Your task to perform on an android device: open app "Roku - Official Remote Control" (install if not already installed) Image 0: 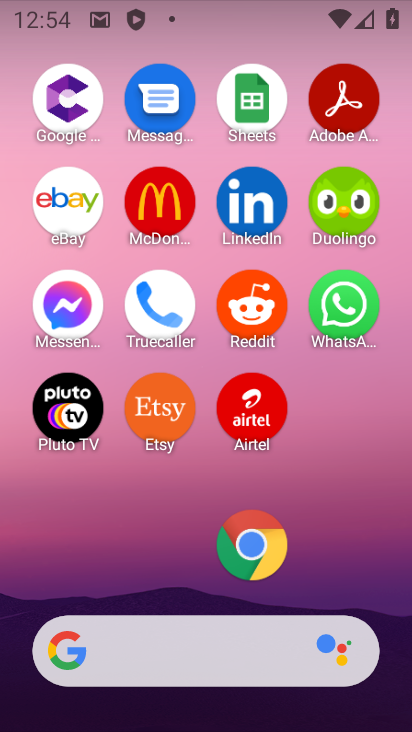
Step 0: drag from (105, 545) to (195, 3)
Your task to perform on an android device: open app "Roku - Official Remote Control" (install if not already installed) Image 1: 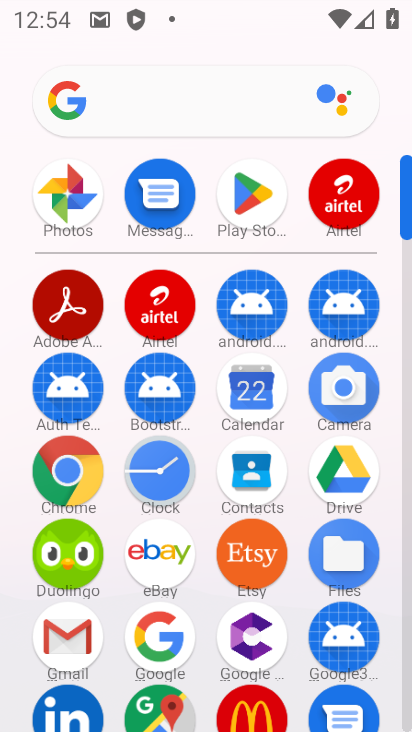
Step 1: click (259, 203)
Your task to perform on an android device: open app "Roku - Official Remote Control" (install if not already installed) Image 2: 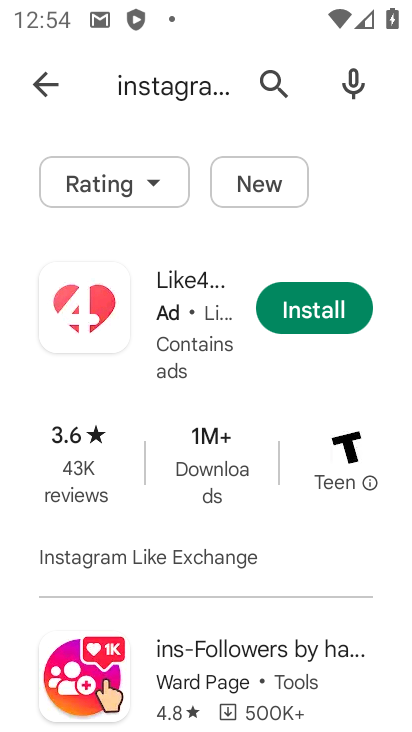
Step 2: click (256, 81)
Your task to perform on an android device: open app "Roku - Official Remote Control" (install if not already installed) Image 3: 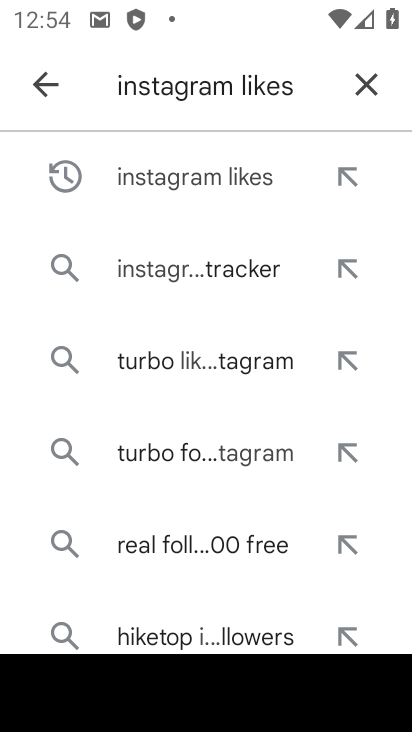
Step 3: click (354, 88)
Your task to perform on an android device: open app "Roku - Official Remote Control" (install if not already installed) Image 4: 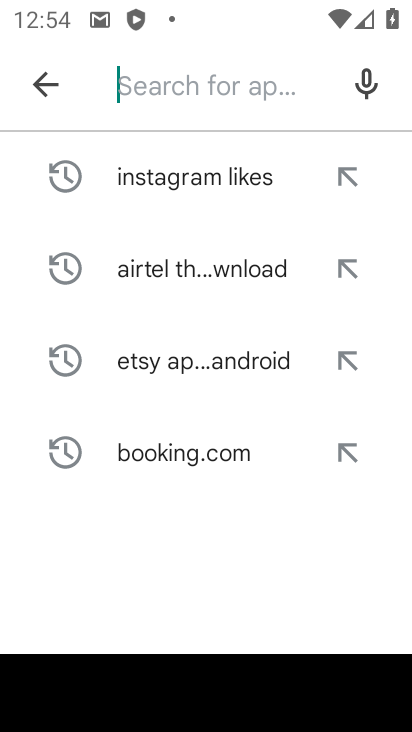
Step 4: click (264, 108)
Your task to perform on an android device: open app "Roku - Official Remote Control" (install if not already installed) Image 5: 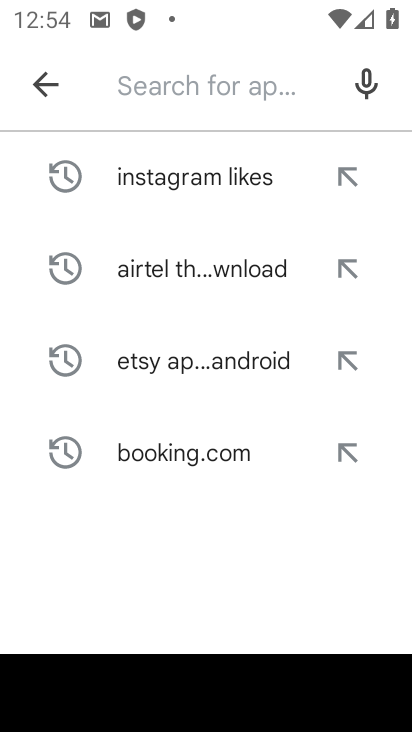
Step 5: type "roku"
Your task to perform on an android device: open app "Roku - Official Remote Control" (install if not already installed) Image 6: 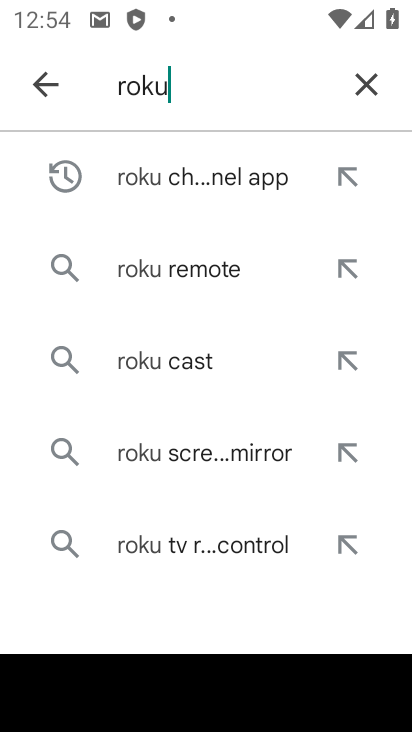
Step 6: click (209, 280)
Your task to perform on an android device: open app "Roku - Official Remote Control" (install if not already installed) Image 7: 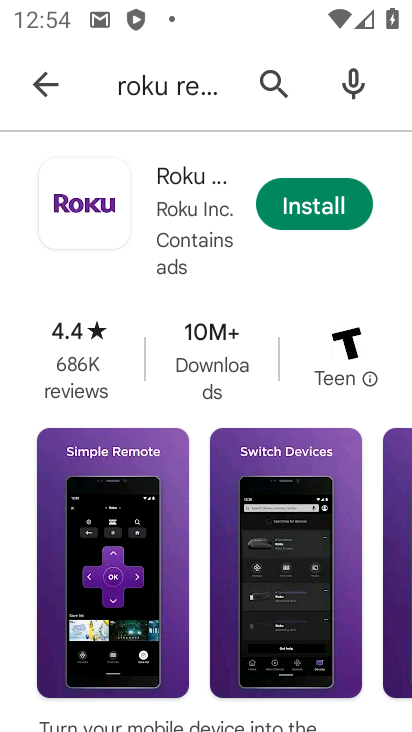
Step 7: click (297, 211)
Your task to perform on an android device: open app "Roku - Official Remote Control" (install if not already installed) Image 8: 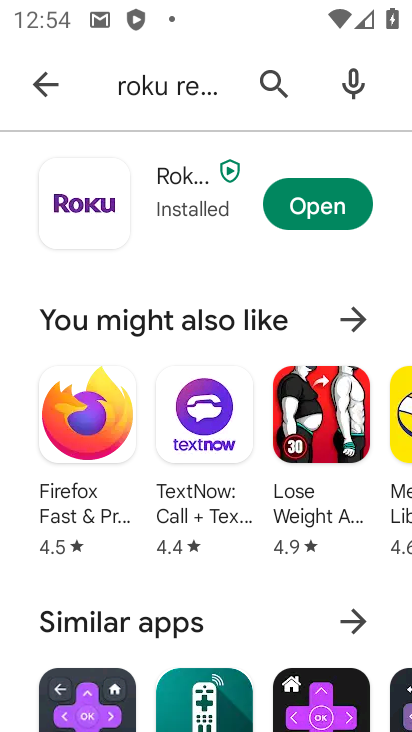
Step 8: click (317, 203)
Your task to perform on an android device: open app "Roku - Official Remote Control" (install if not already installed) Image 9: 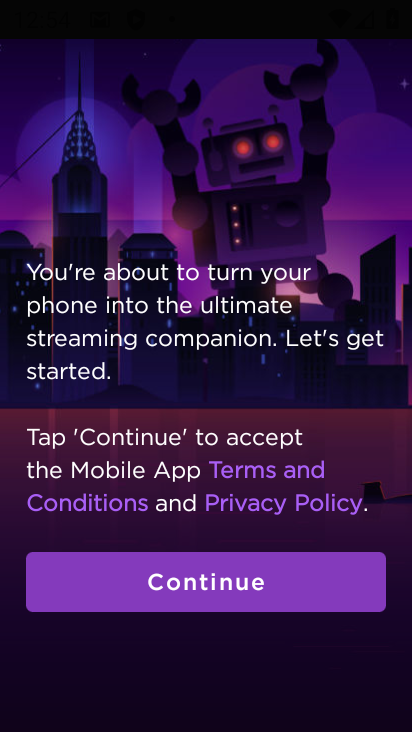
Step 9: task complete